Your task to perform on an android device: What's the news in Pakistan? Image 0: 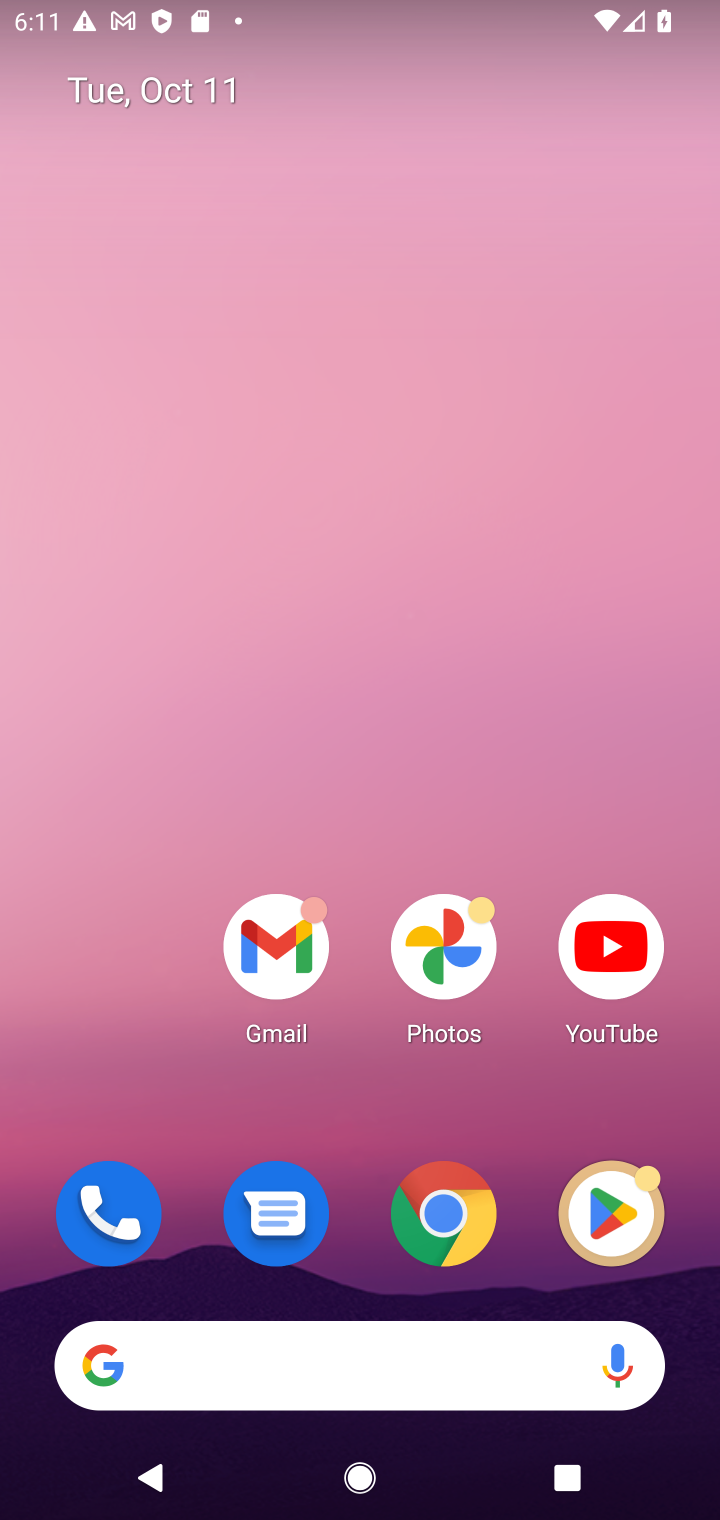
Step 0: drag from (337, 1294) to (444, 351)
Your task to perform on an android device: What's the news in Pakistan? Image 1: 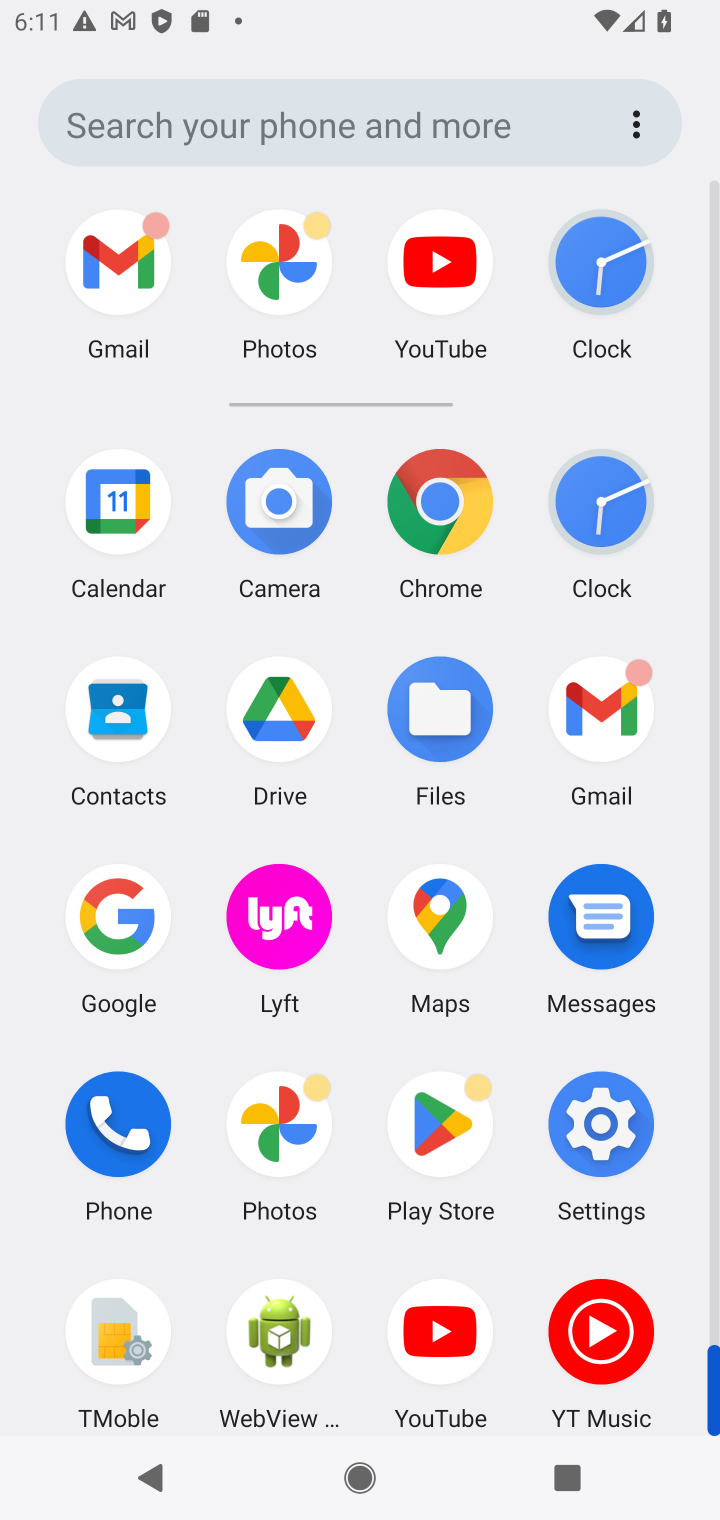
Step 1: click (118, 1018)
Your task to perform on an android device: What's the news in Pakistan? Image 2: 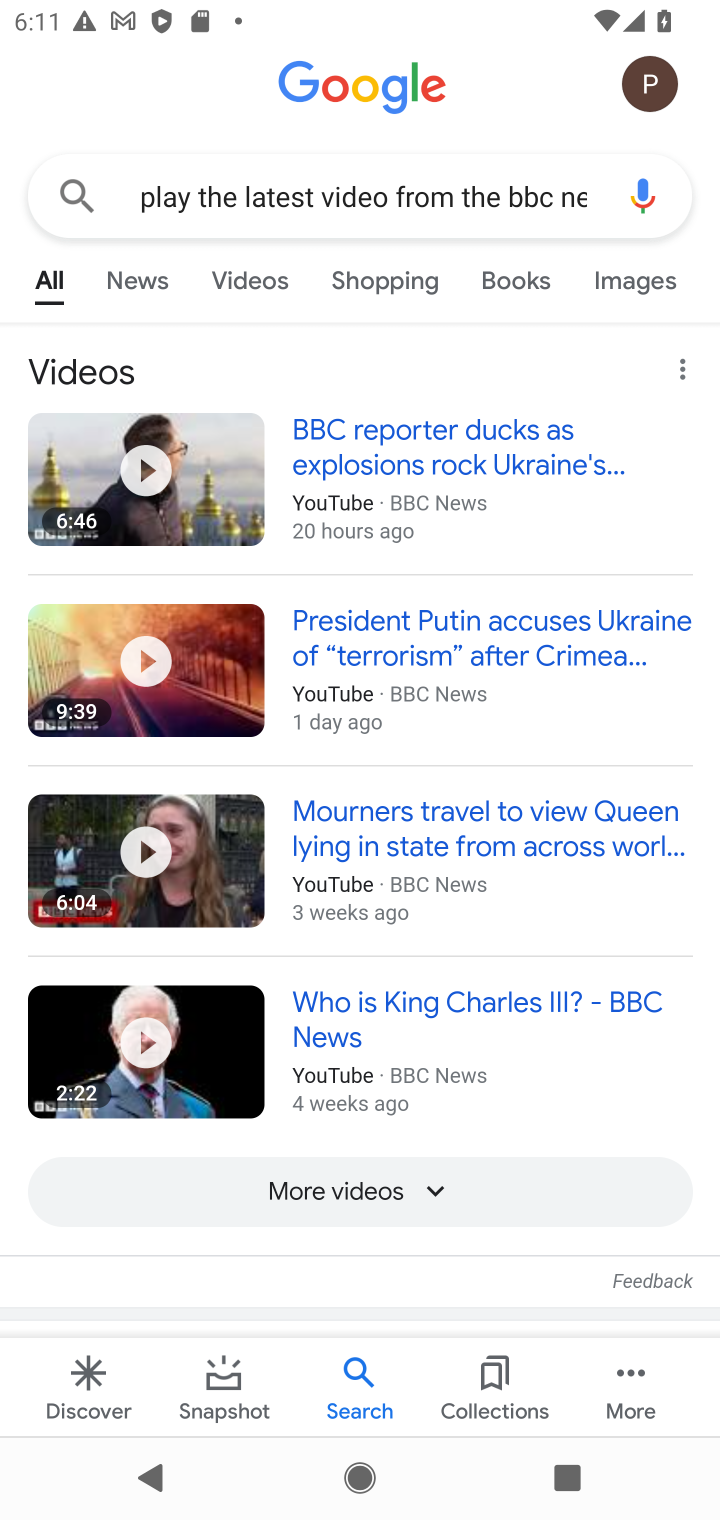
Step 2: click (395, 186)
Your task to perform on an android device: What's the news in Pakistan? Image 3: 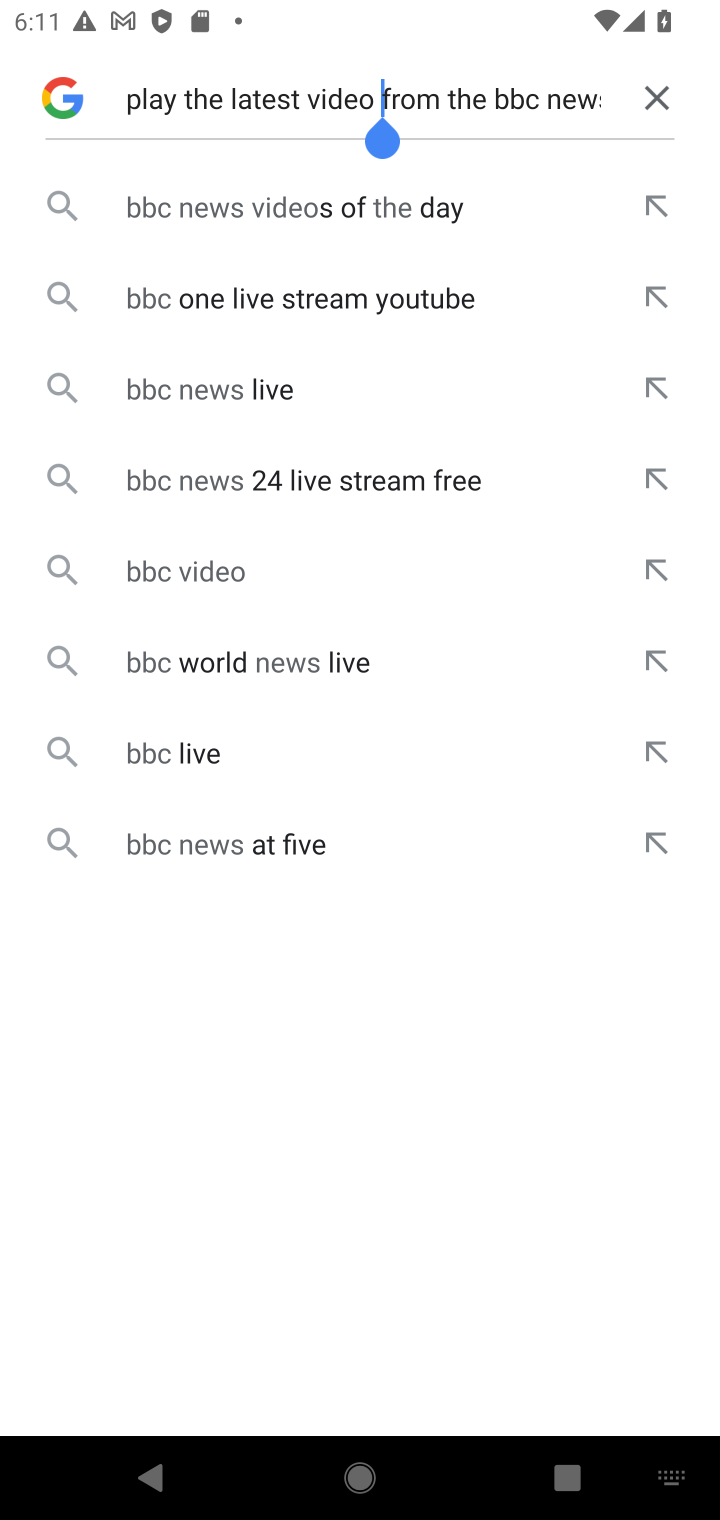
Step 3: click (650, 97)
Your task to perform on an android device: What's the news in Pakistan? Image 4: 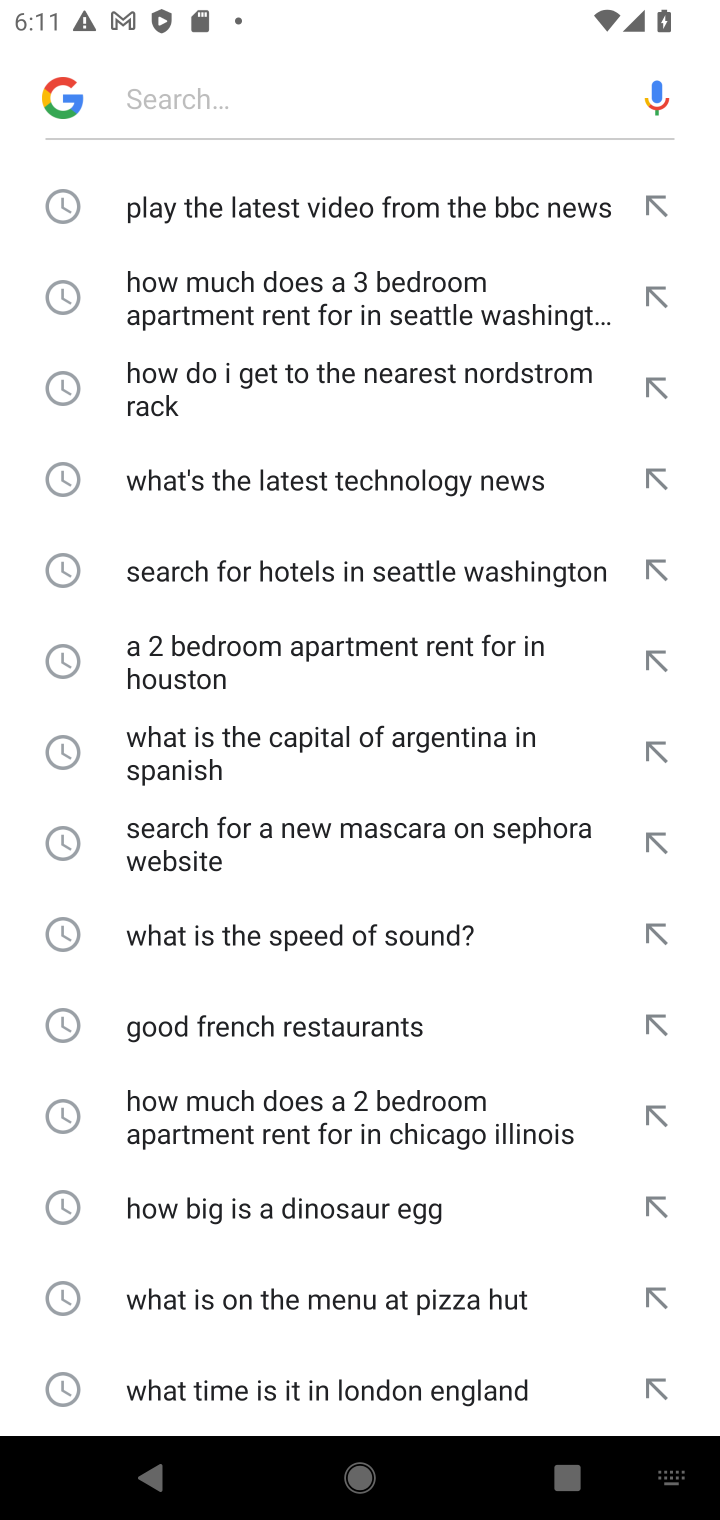
Step 4: type "What's the news in Pakistan?"
Your task to perform on an android device: What's the news in Pakistan? Image 5: 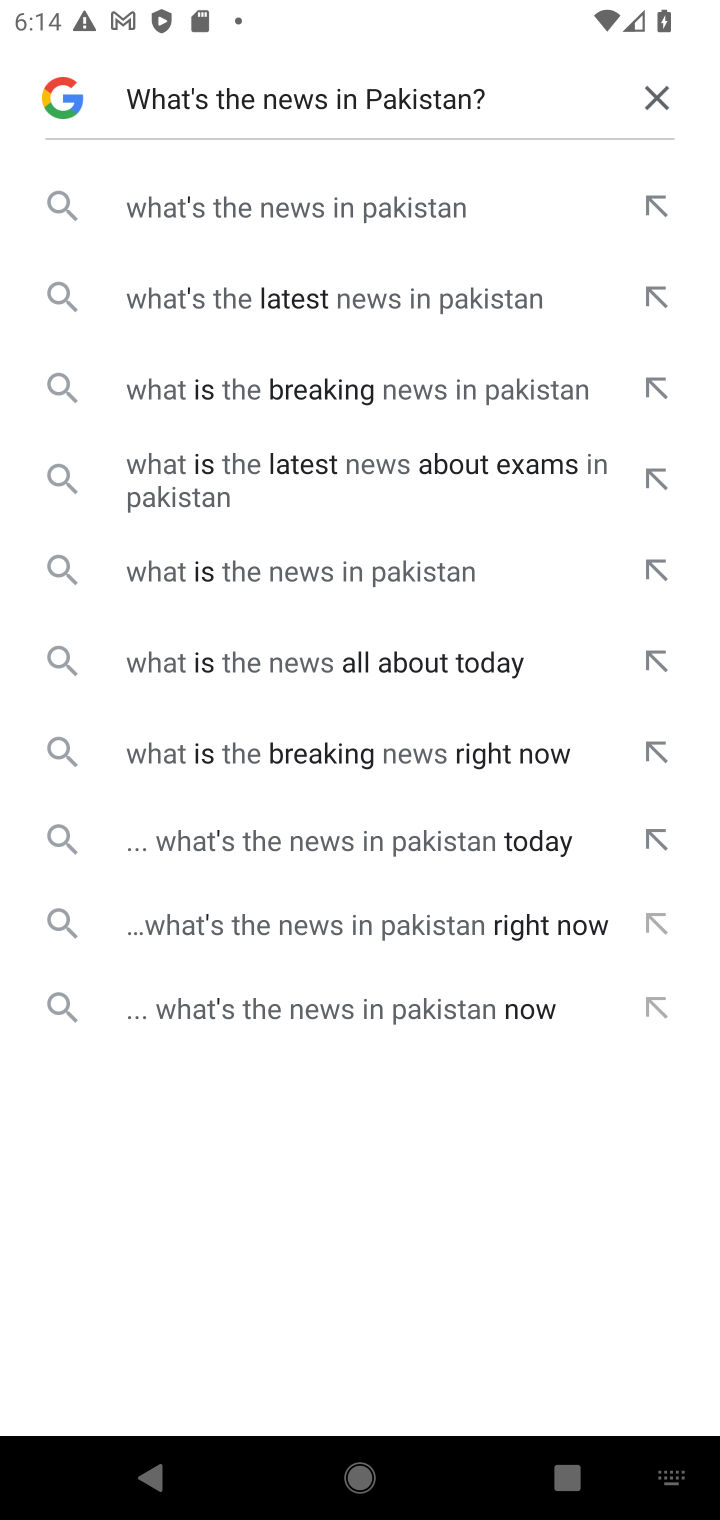
Step 5: click (272, 225)
Your task to perform on an android device: What's the news in Pakistan? Image 6: 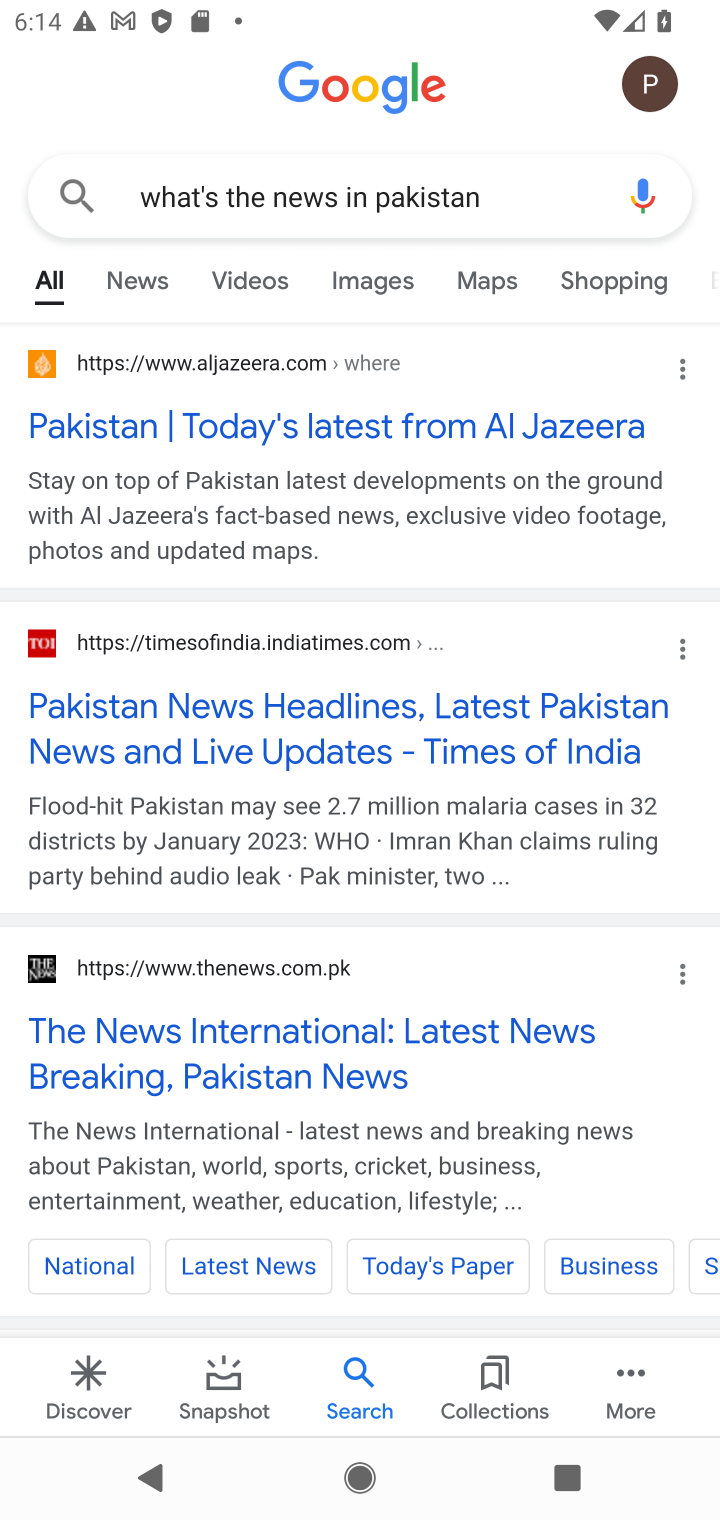
Step 6: click (297, 443)
Your task to perform on an android device: What's the news in Pakistan? Image 7: 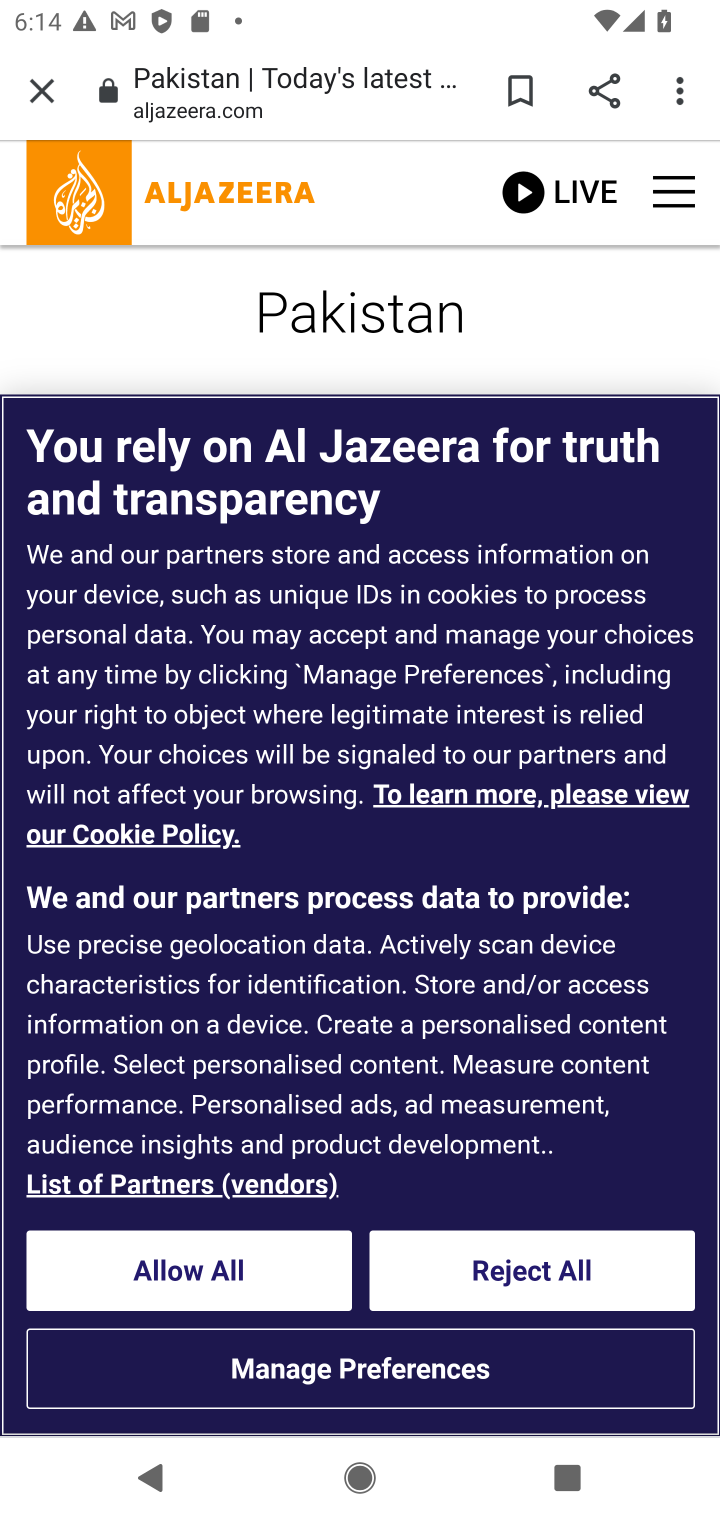
Step 7: task complete